Your task to perform on an android device: Go to Amazon Image 0: 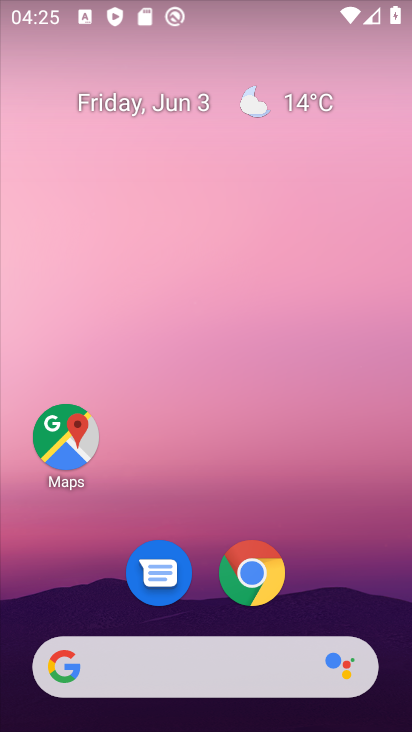
Step 0: drag from (222, 616) to (294, 2)
Your task to perform on an android device: Go to Amazon Image 1: 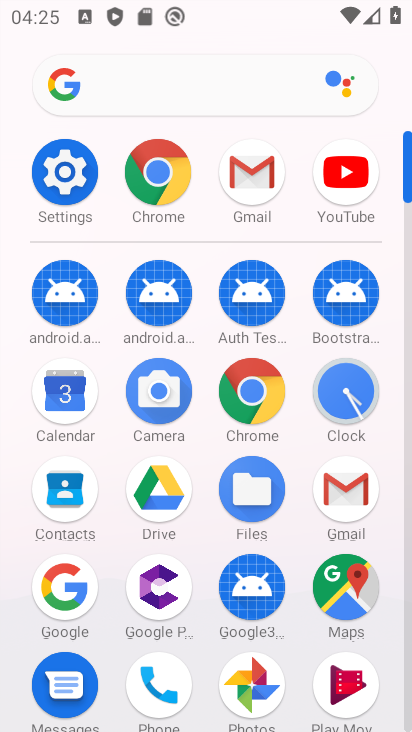
Step 1: click (253, 401)
Your task to perform on an android device: Go to Amazon Image 2: 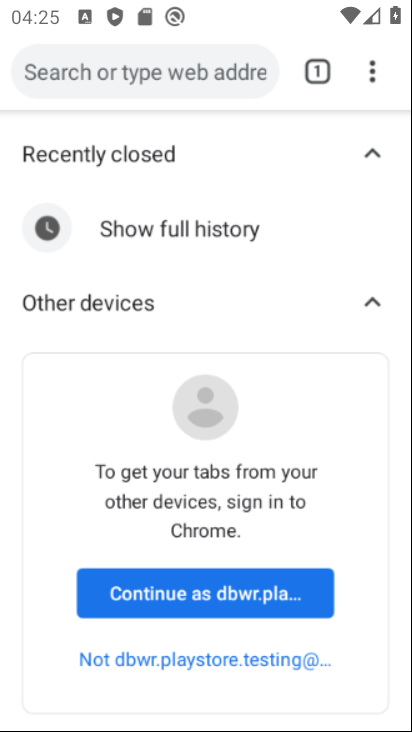
Step 2: drag from (365, 74) to (153, 148)
Your task to perform on an android device: Go to Amazon Image 3: 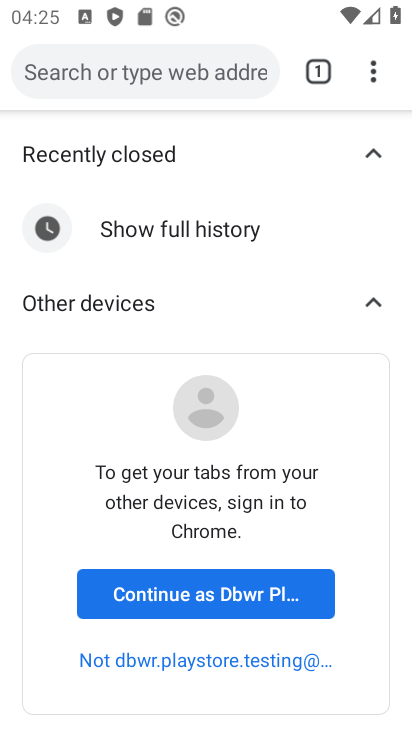
Step 3: click (365, 82)
Your task to perform on an android device: Go to Amazon Image 4: 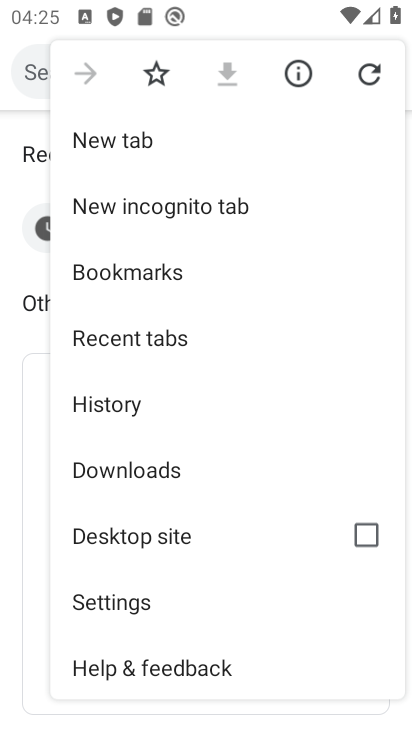
Step 4: click (243, 134)
Your task to perform on an android device: Go to Amazon Image 5: 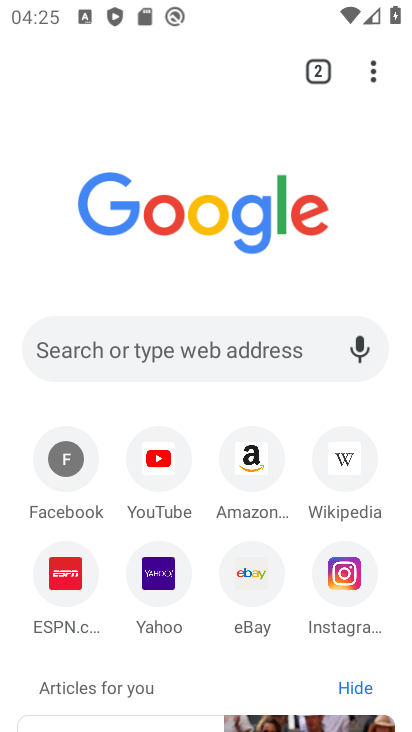
Step 5: click (254, 454)
Your task to perform on an android device: Go to Amazon Image 6: 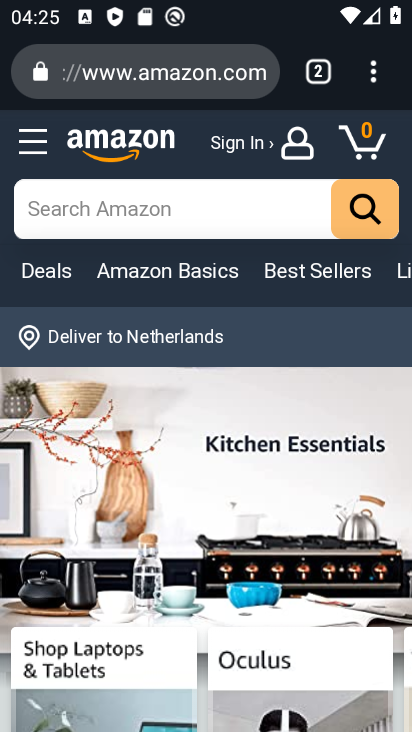
Step 6: task complete